Your task to perform on an android device: choose inbox layout in the gmail app Image 0: 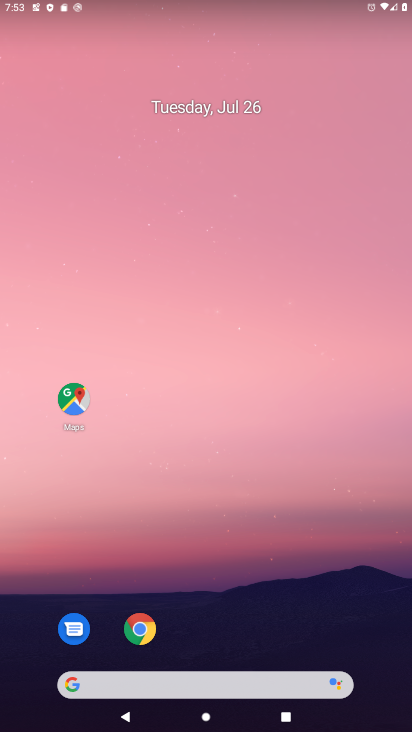
Step 0: drag from (236, 631) to (236, 42)
Your task to perform on an android device: choose inbox layout in the gmail app Image 1: 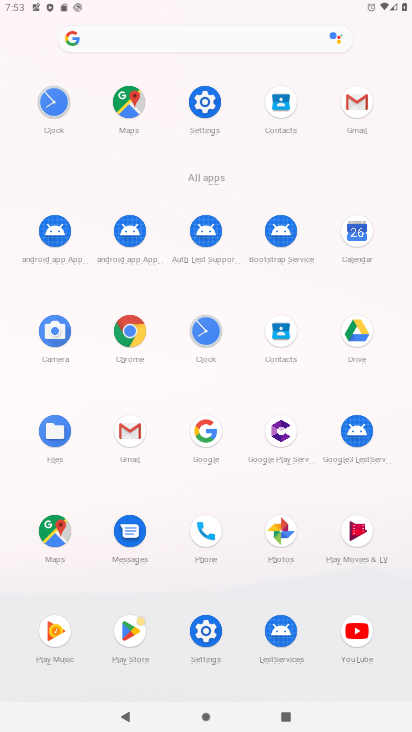
Step 1: click (352, 112)
Your task to perform on an android device: choose inbox layout in the gmail app Image 2: 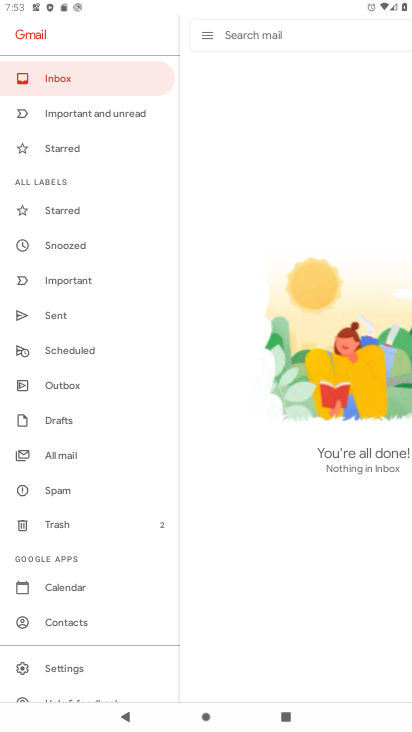
Step 2: click (48, 670)
Your task to perform on an android device: choose inbox layout in the gmail app Image 3: 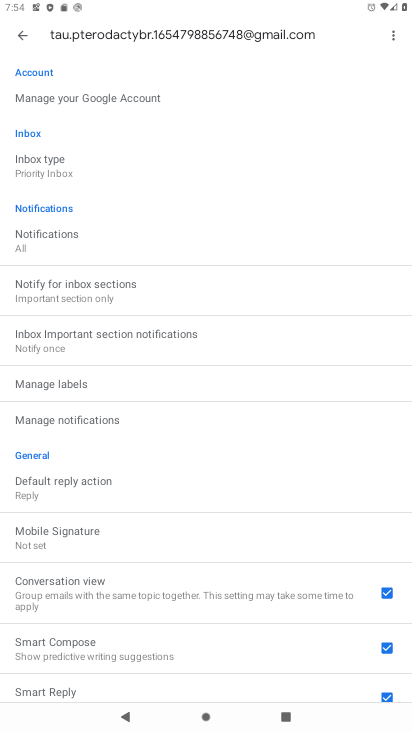
Step 3: click (61, 175)
Your task to perform on an android device: choose inbox layout in the gmail app Image 4: 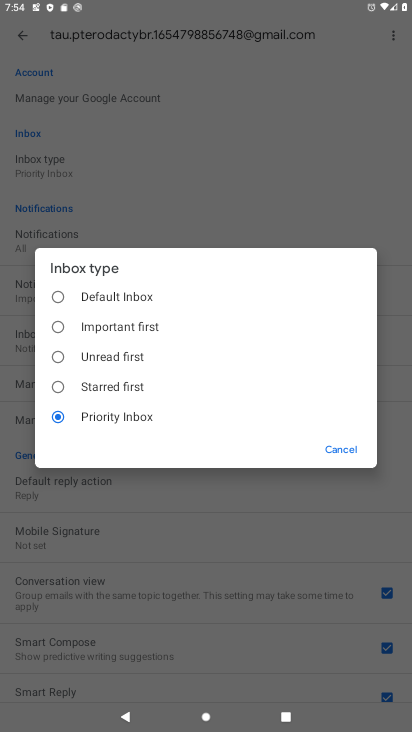
Step 4: click (96, 299)
Your task to perform on an android device: choose inbox layout in the gmail app Image 5: 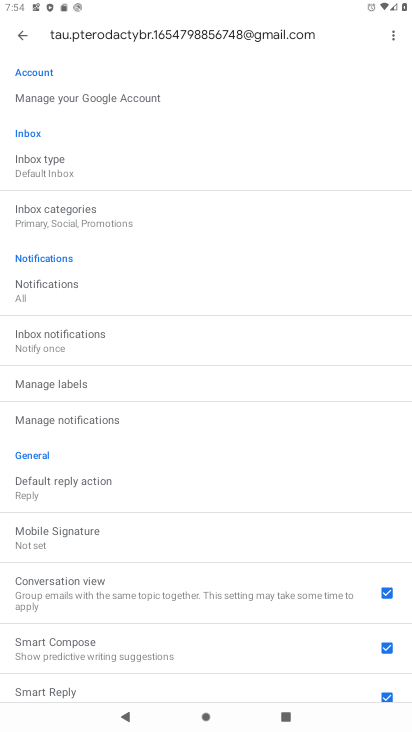
Step 5: task complete